Your task to perform on an android device: Open Chrome and go to the settings page Image 0: 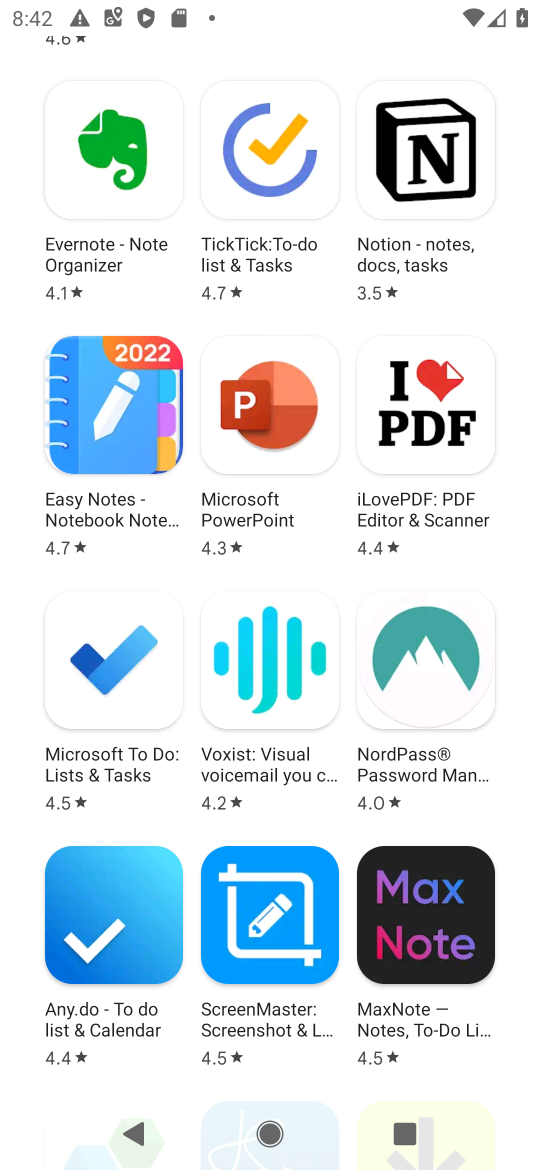
Step 0: press home button
Your task to perform on an android device: Open Chrome and go to the settings page Image 1: 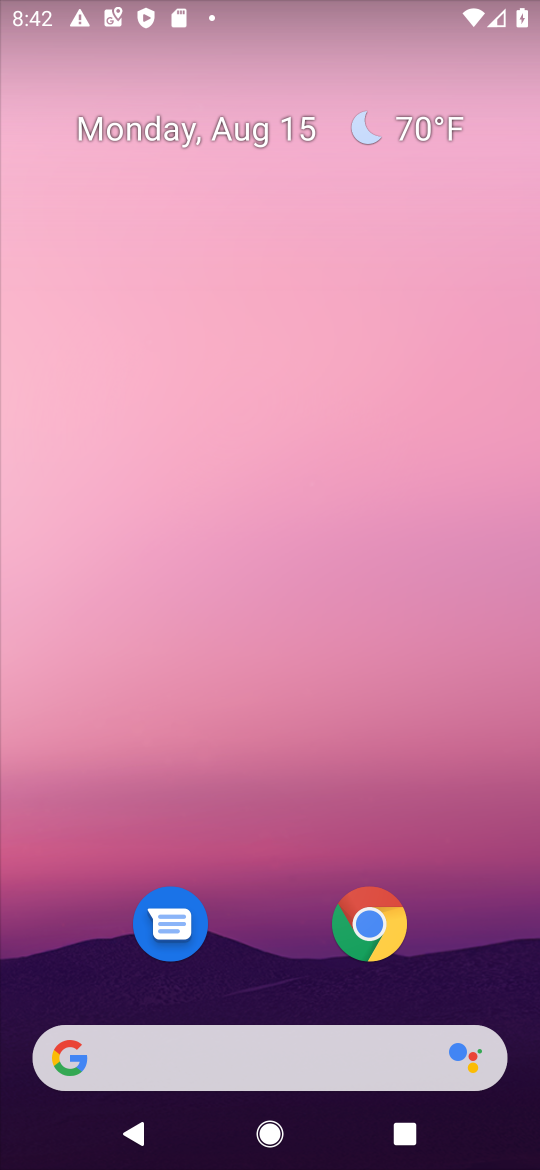
Step 1: click (368, 924)
Your task to perform on an android device: Open Chrome and go to the settings page Image 2: 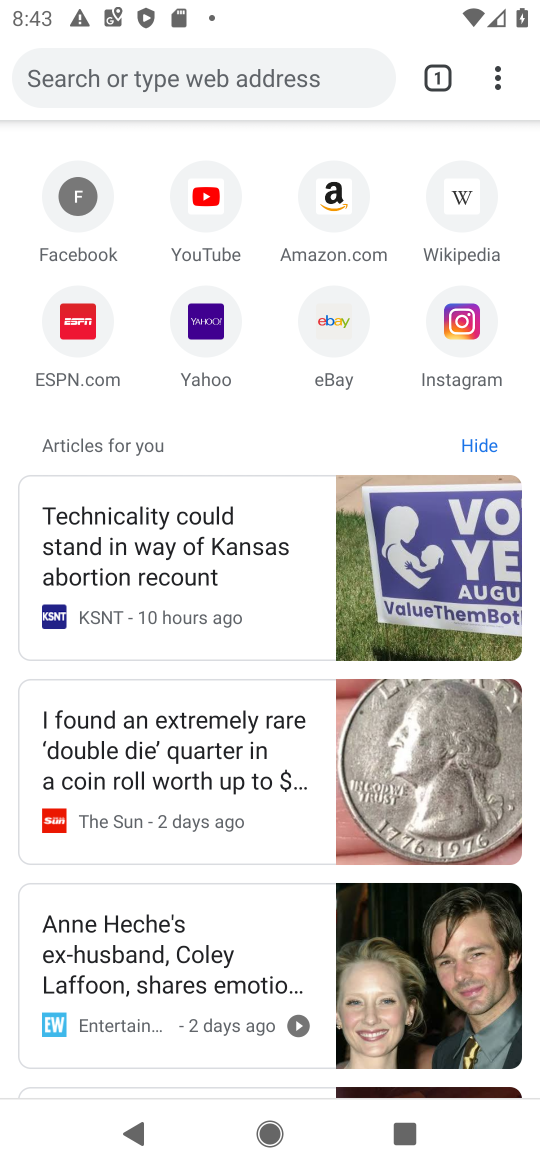
Step 2: click (494, 88)
Your task to perform on an android device: Open Chrome and go to the settings page Image 3: 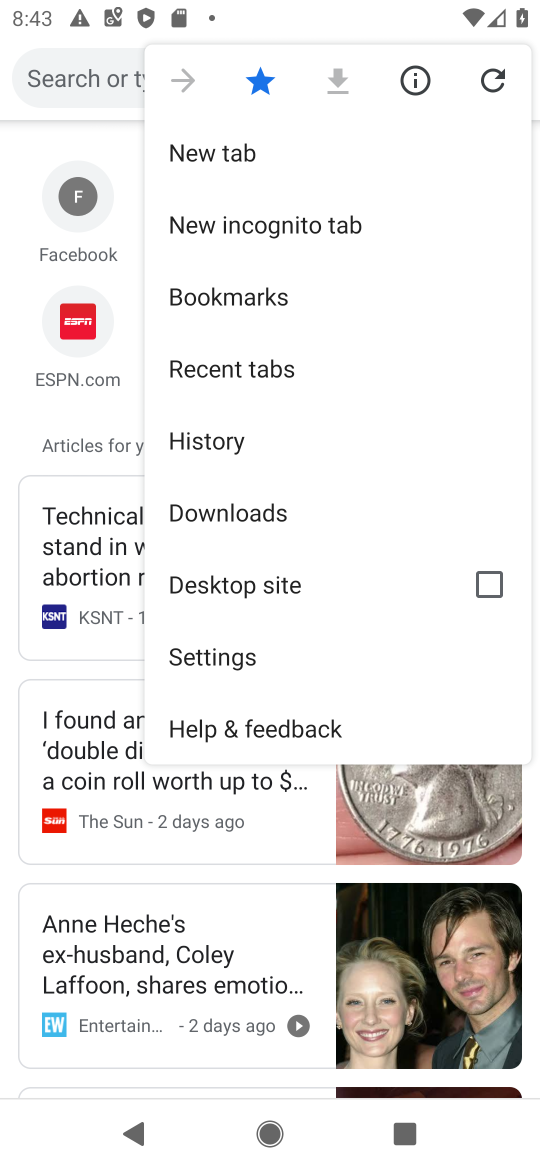
Step 3: click (219, 661)
Your task to perform on an android device: Open Chrome and go to the settings page Image 4: 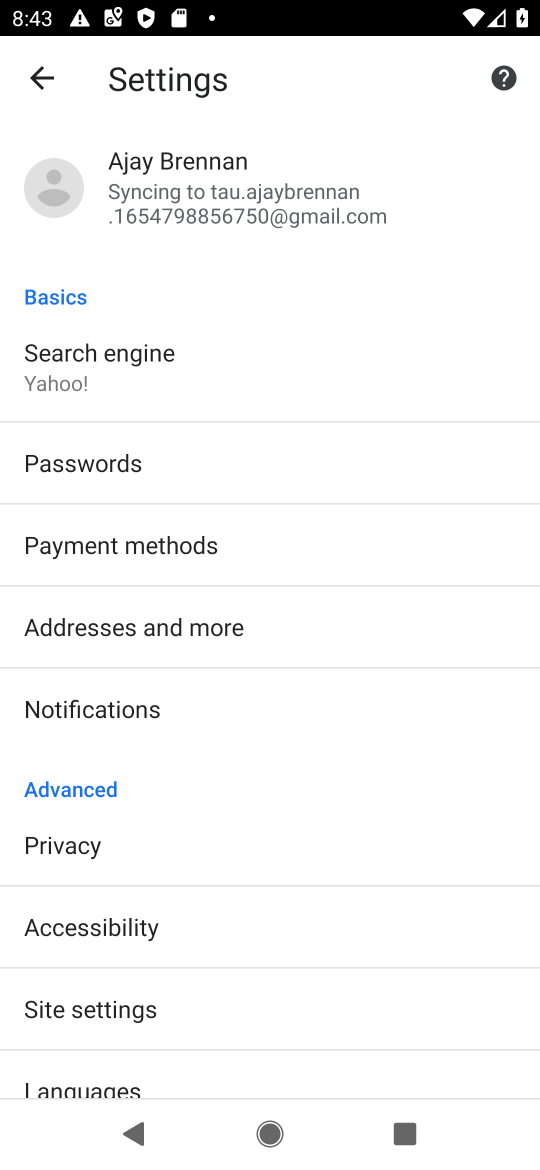
Step 4: task complete